Your task to perform on an android device: Open internet settings Image 0: 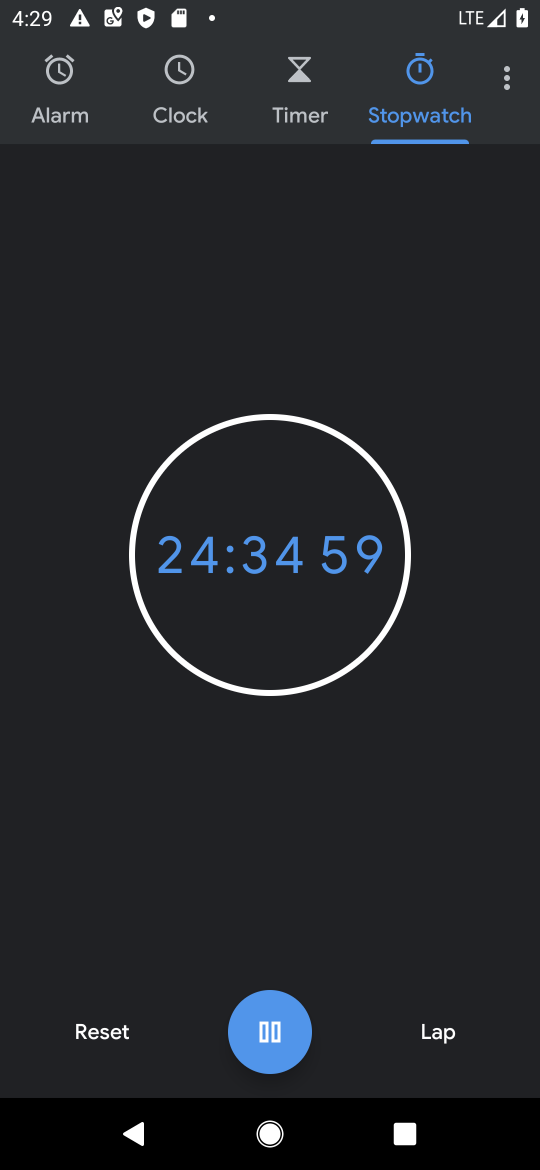
Step 0: drag from (346, 4) to (342, 312)
Your task to perform on an android device: Open internet settings Image 1: 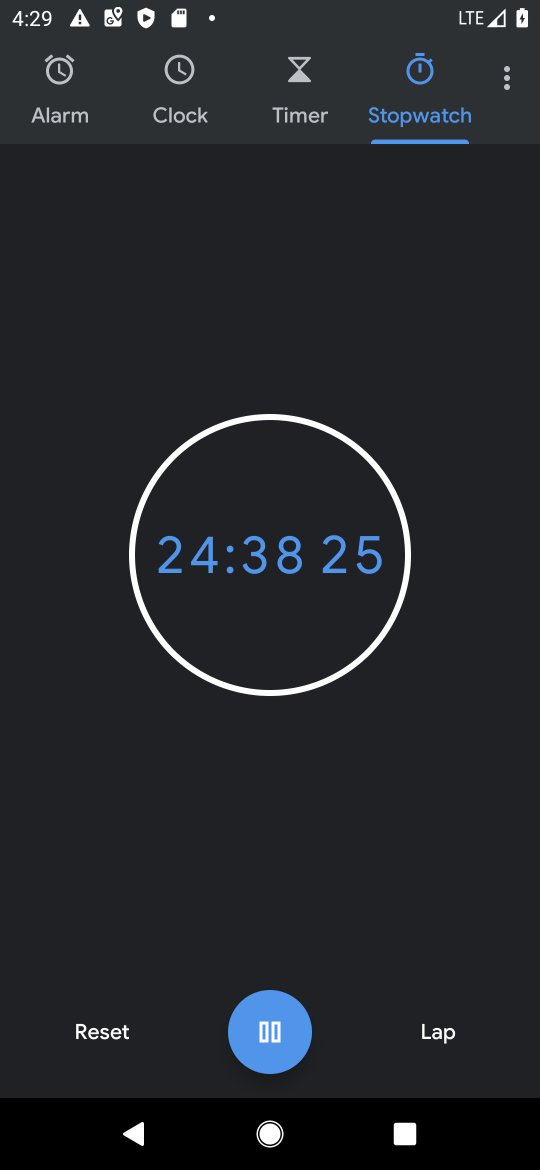
Step 1: drag from (342, 21) to (400, 798)
Your task to perform on an android device: Open internet settings Image 2: 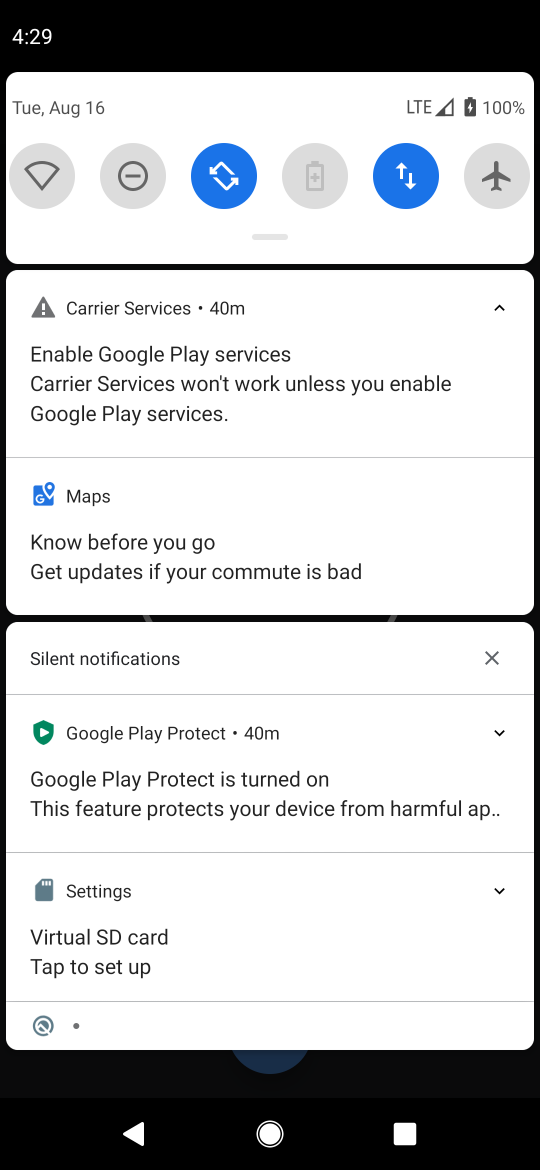
Step 2: click (404, 176)
Your task to perform on an android device: Open internet settings Image 3: 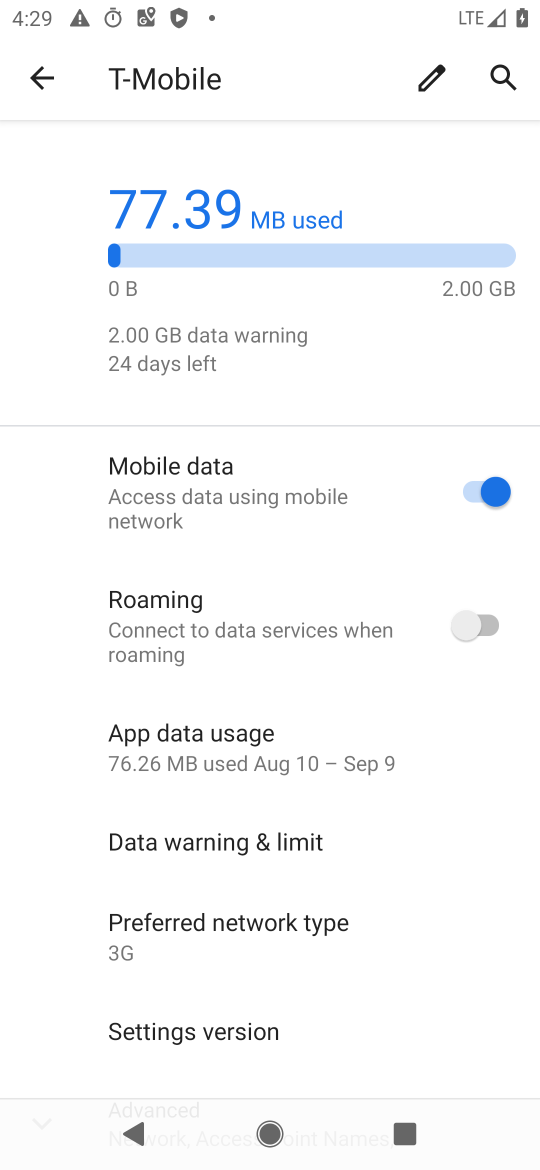
Step 3: task complete